Your task to perform on an android device: change your default location settings in chrome Image 0: 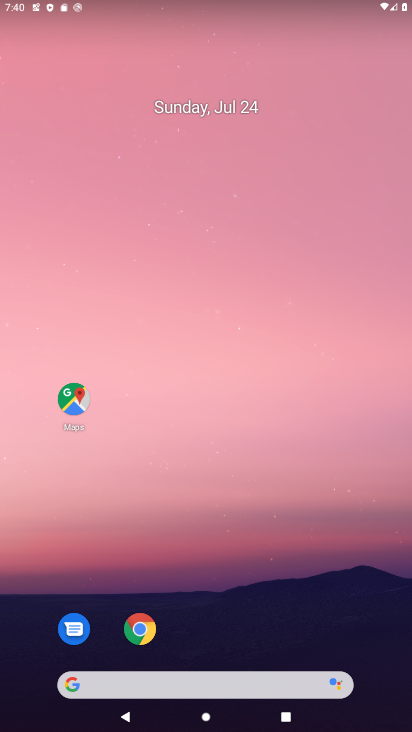
Step 0: press home button
Your task to perform on an android device: change your default location settings in chrome Image 1: 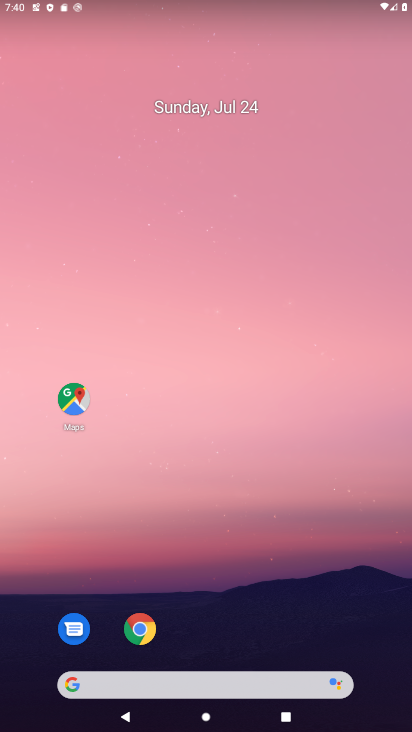
Step 1: drag from (353, 620) to (326, 56)
Your task to perform on an android device: change your default location settings in chrome Image 2: 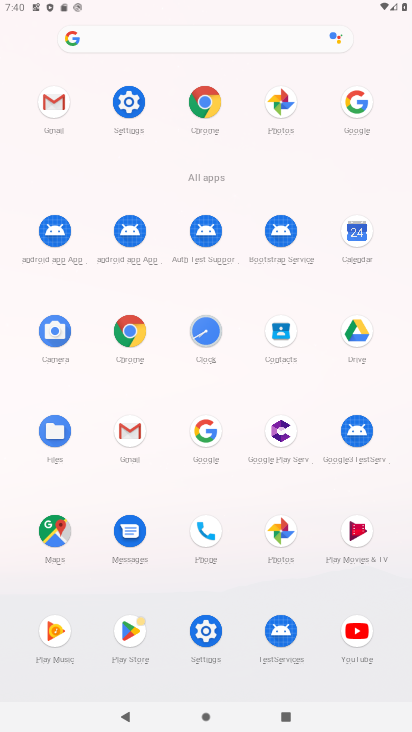
Step 2: click (140, 335)
Your task to perform on an android device: change your default location settings in chrome Image 3: 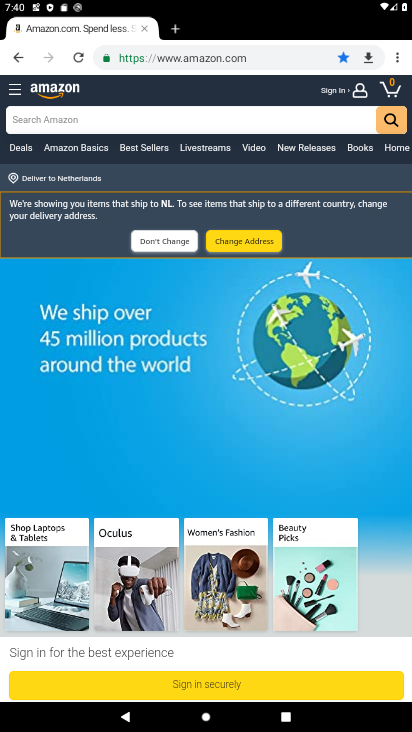
Step 3: click (396, 57)
Your task to perform on an android device: change your default location settings in chrome Image 4: 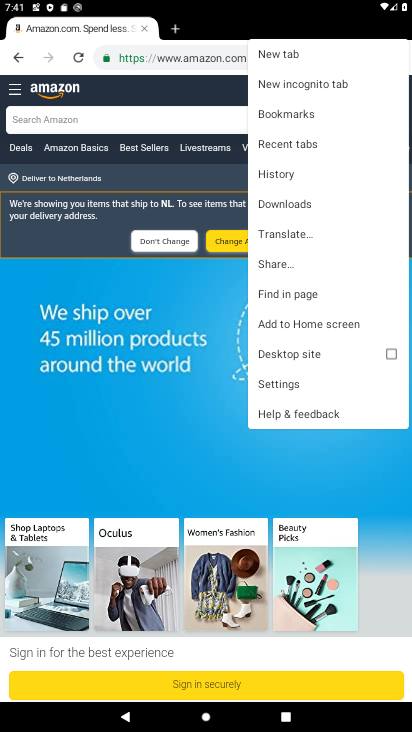
Step 4: click (293, 384)
Your task to perform on an android device: change your default location settings in chrome Image 5: 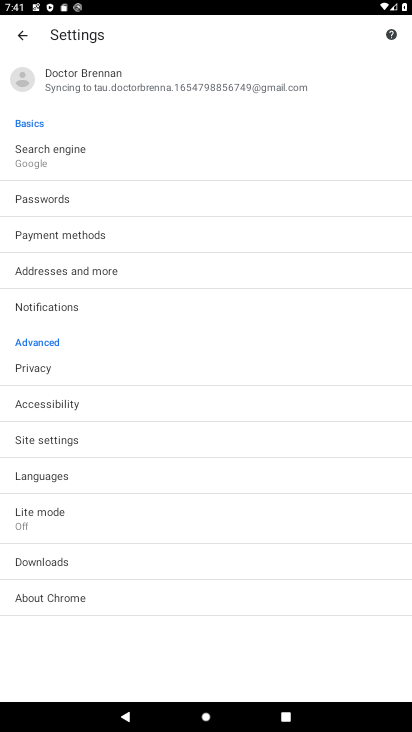
Step 5: drag from (266, 534) to (260, 408)
Your task to perform on an android device: change your default location settings in chrome Image 6: 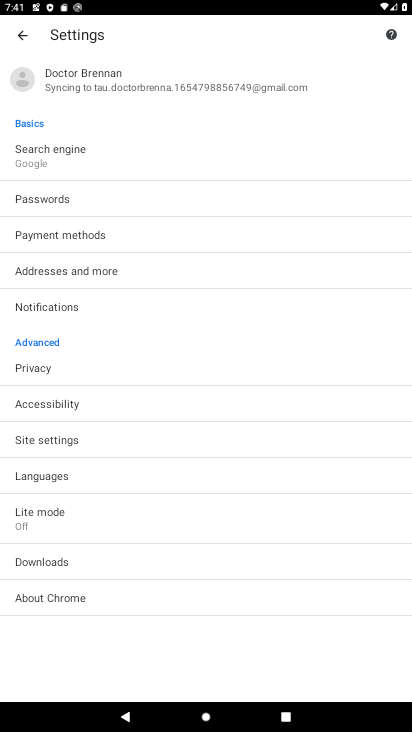
Step 6: click (220, 437)
Your task to perform on an android device: change your default location settings in chrome Image 7: 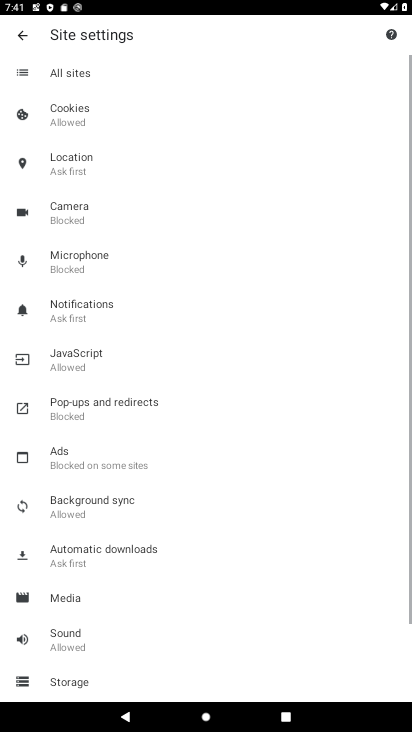
Step 7: drag from (282, 496) to (285, 361)
Your task to perform on an android device: change your default location settings in chrome Image 8: 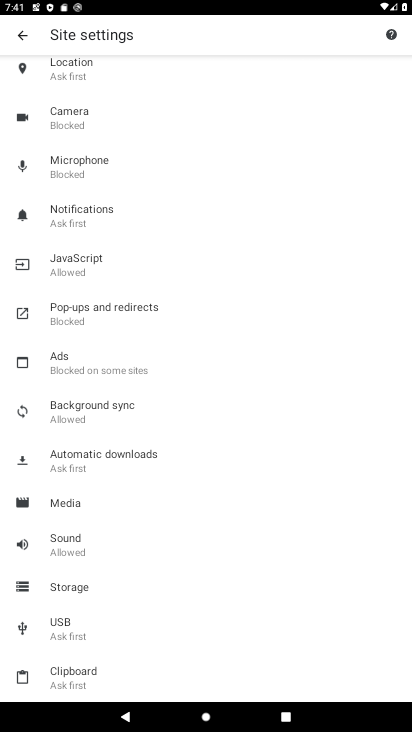
Step 8: drag from (296, 276) to (297, 371)
Your task to perform on an android device: change your default location settings in chrome Image 9: 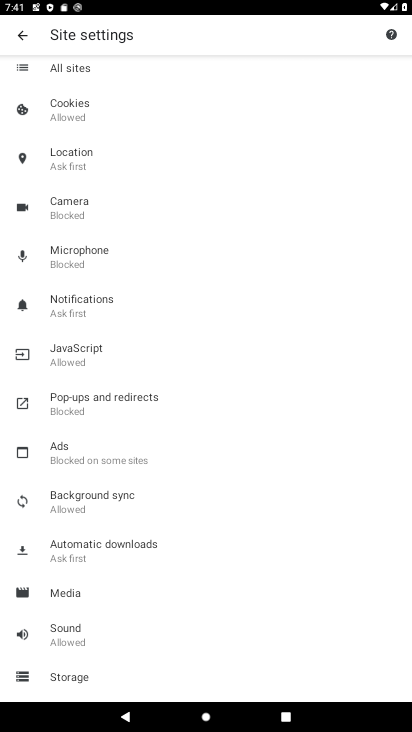
Step 9: drag from (292, 259) to (288, 406)
Your task to perform on an android device: change your default location settings in chrome Image 10: 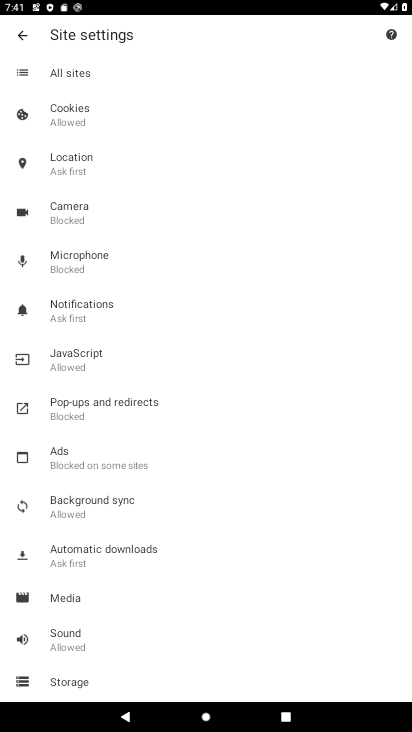
Step 10: click (120, 180)
Your task to perform on an android device: change your default location settings in chrome Image 11: 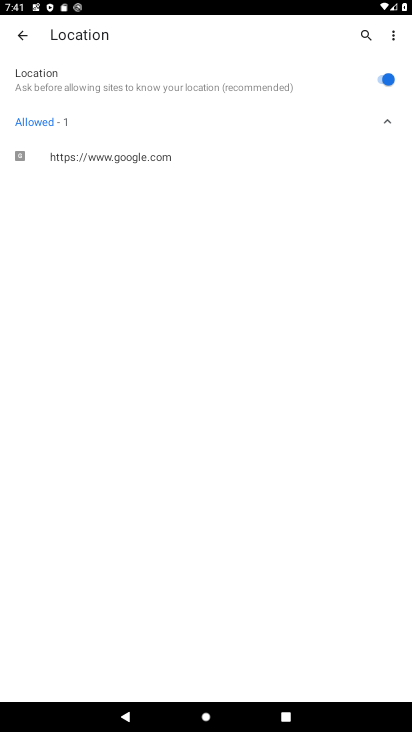
Step 11: click (386, 76)
Your task to perform on an android device: change your default location settings in chrome Image 12: 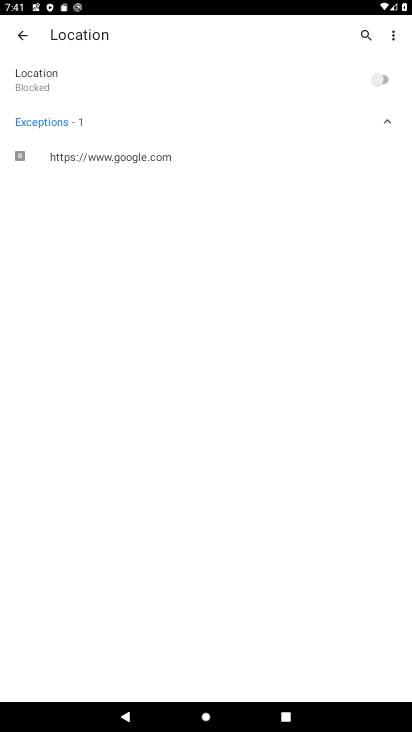
Step 12: task complete